Your task to perform on an android device: read, delete, or share a saved page in the chrome app Image 0: 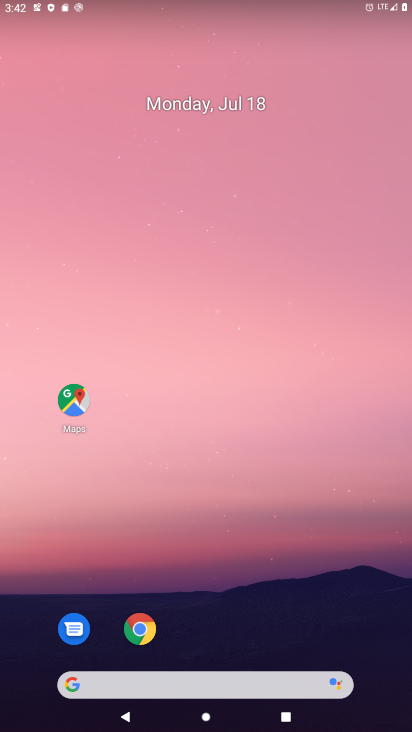
Step 0: click (152, 634)
Your task to perform on an android device: read, delete, or share a saved page in the chrome app Image 1: 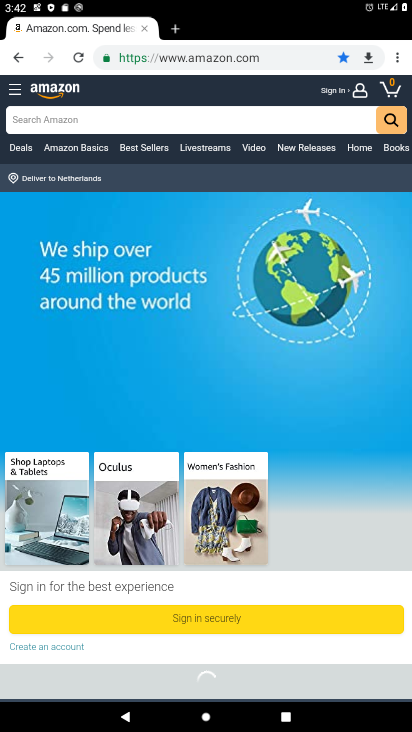
Step 1: click (392, 59)
Your task to perform on an android device: read, delete, or share a saved page in the chrome app Image 2: 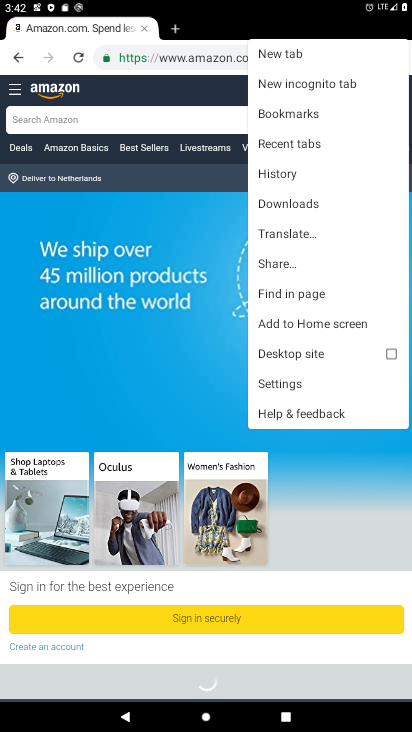
Step 2: click (284, 203)
Your task to perform on an android device: read, delete, or share a saved page in the chrome app Image 3: 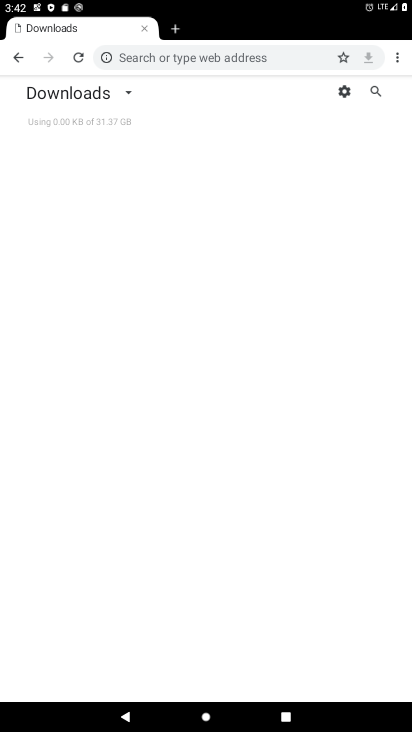
Step 3: task complete